Your task to perform on an android device: change the clock style Image 0: 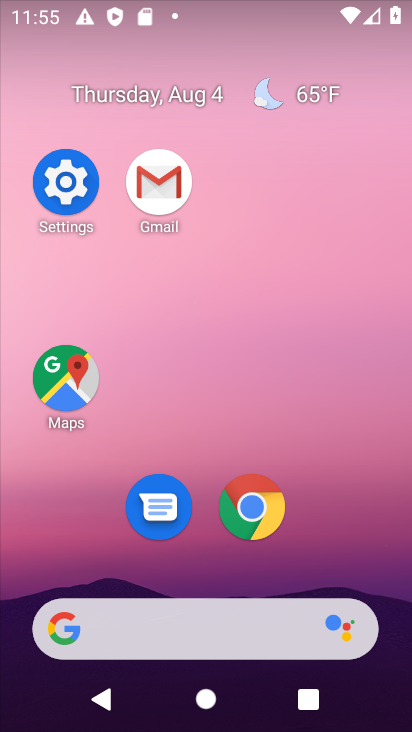
Step 0: drag from (355, 546) to (349, 162)
Your task to perform on an android device: change the clock style Image 1: 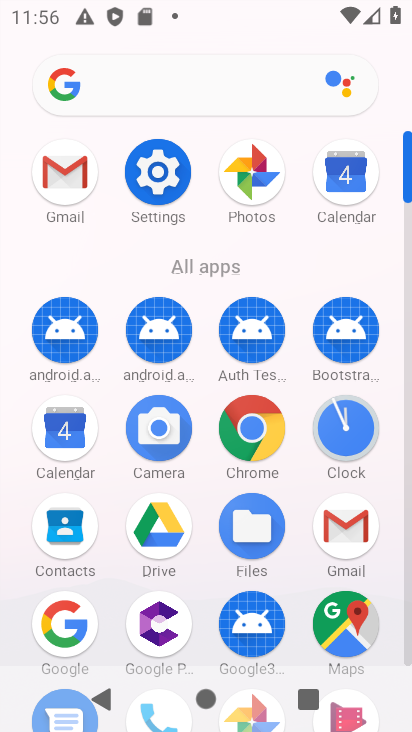
Step 1: drag from (342, 430) to (233, 217)
Your task to perform on an android device: change the clock style Image 2: 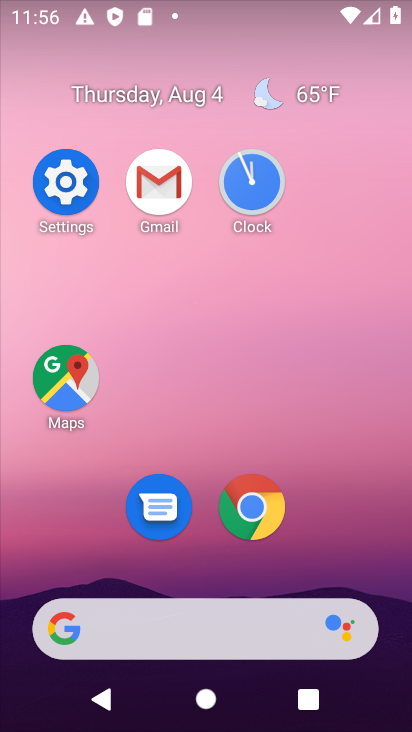
Step 2: click (245, 196)
Your task to perform on an android device: change the clock style Image 3: 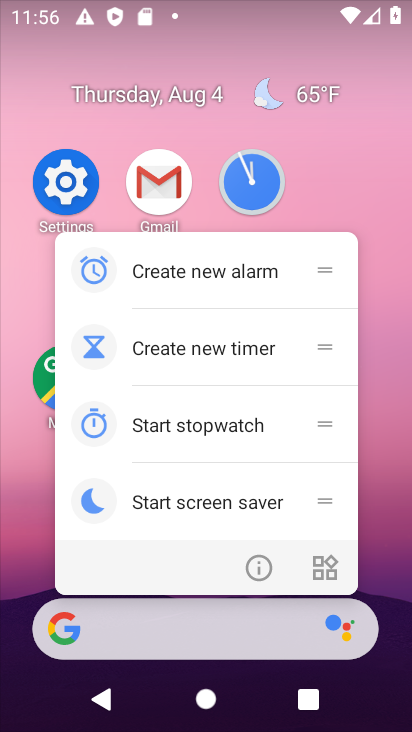
Step 3: click (245, 196)
Your task to perform on an android device: change the clock style Image 4: 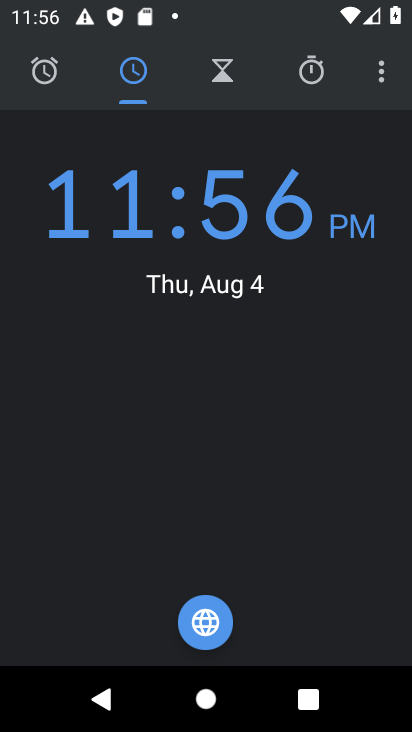
Step 4: click (386, 67)
Your task to perform on an android device: change the clock style Image 5: 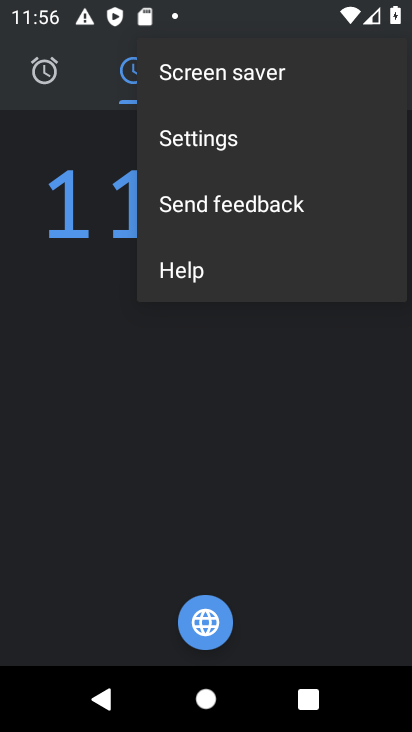
Step 5: click (158, 142)
Your task to perform on an android device: change the clock style Image 6: 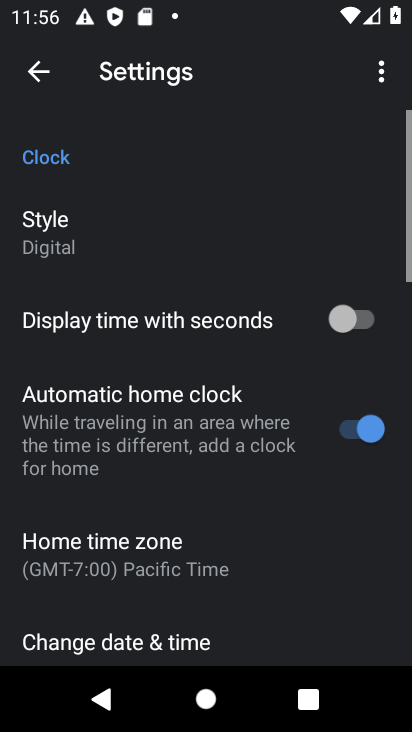
Step 6: click (73, 215)
Your task to perform on an android device: change the clock style Image 7: 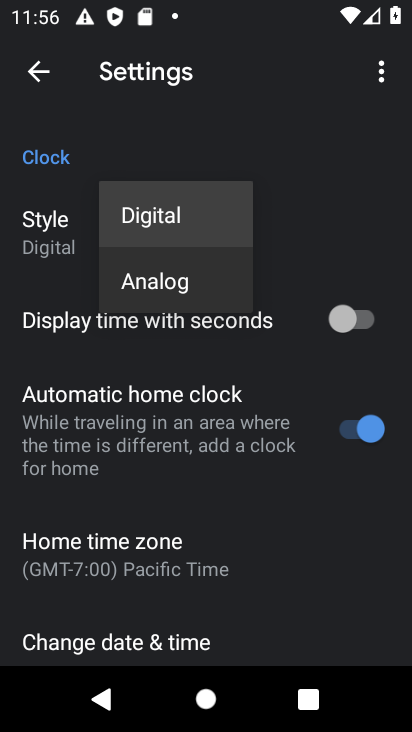
Step 7: click (142, 301)
Your task to perform on an android device: change the clock style Image 8: 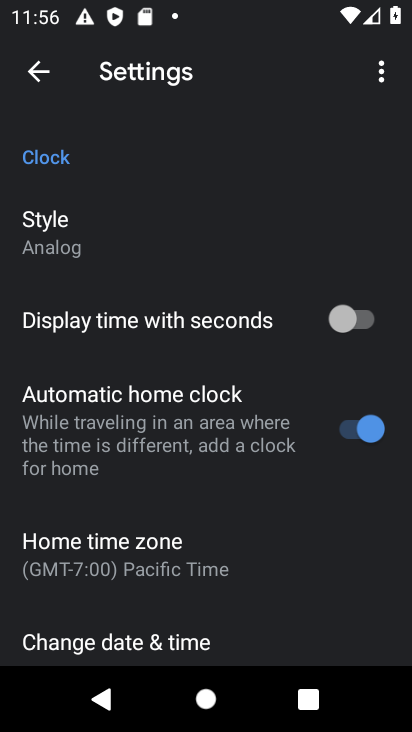
Step 8: task complete